Your task to perform on an android device: Open the phone app and click the voicemail tab. Image 0: 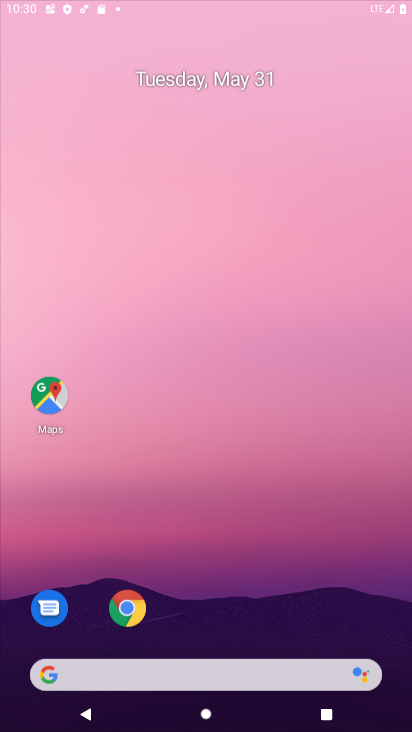
Step 0: click (110, 4)
Your task to perform on an android device: Open the phone app and click the voicemail tab. Image 1: 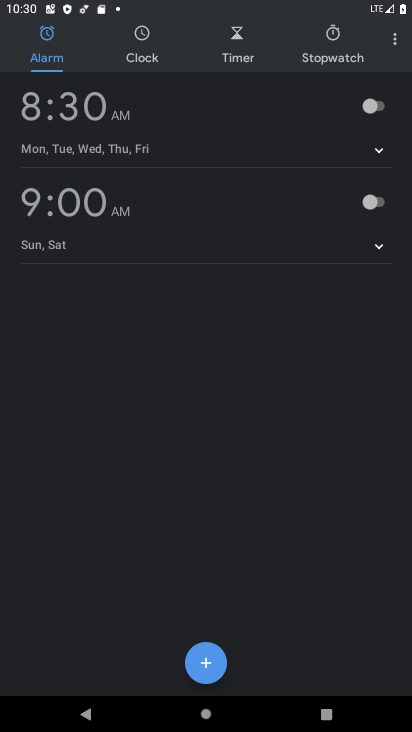
Step 1: press home button
Your task to perform on an android device: Open the phone app and click the voicemail tab. Image 2: 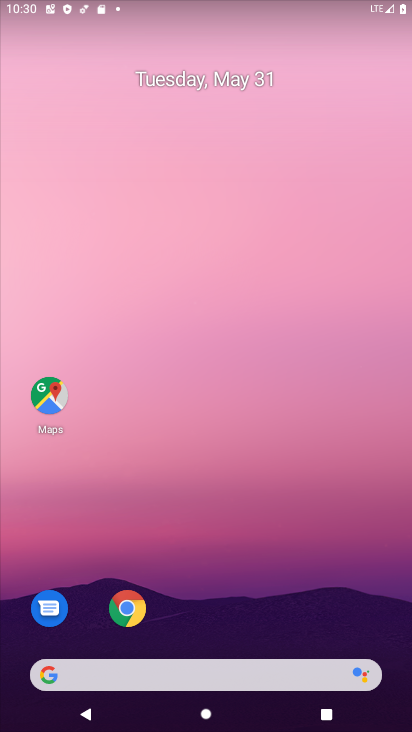
Step 2: drag from (194, 642) to (318, 14)
Your task to perform on an android device: Open the phone app and click the voicemail tab. Image 3: 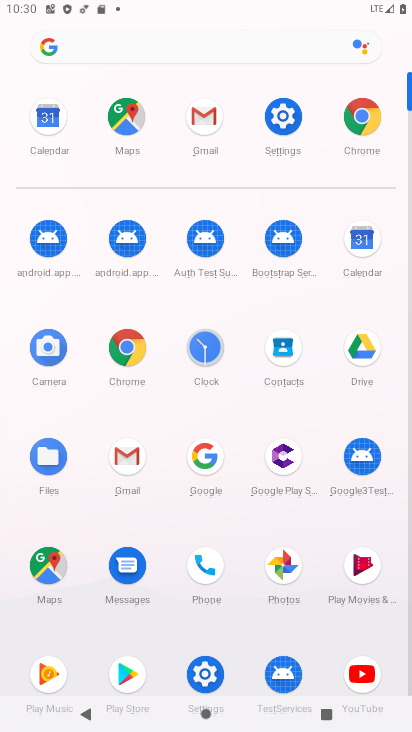
Step 3: click (210, 572)
Your task to perform on an android device: Open the phone app and click the voicemail tab. Image 4: 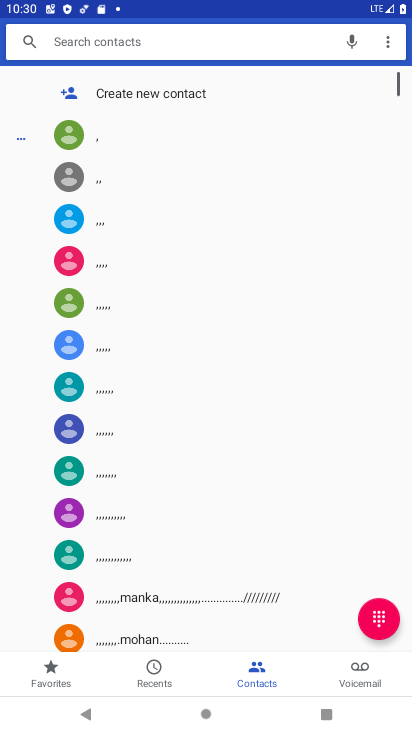
Step 4: click (357, 687)
Your task to perform on an android device: Open the phone app and click the voicemail tab. Image 5: 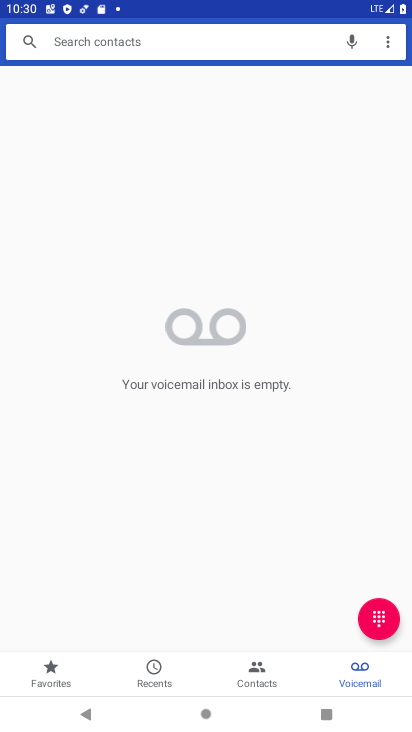
Step 5: task complete